Your task to perform on an android device: Open Yahoo.com Image 0: 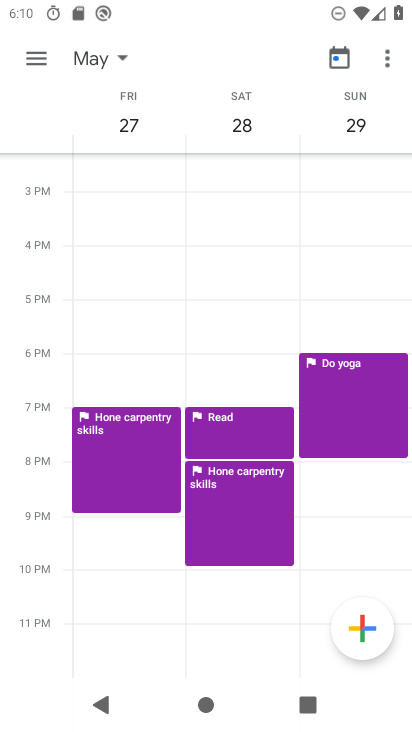
Step 0: press home button
Your task to perform on an android device: Open Yahoo.com Image 1: 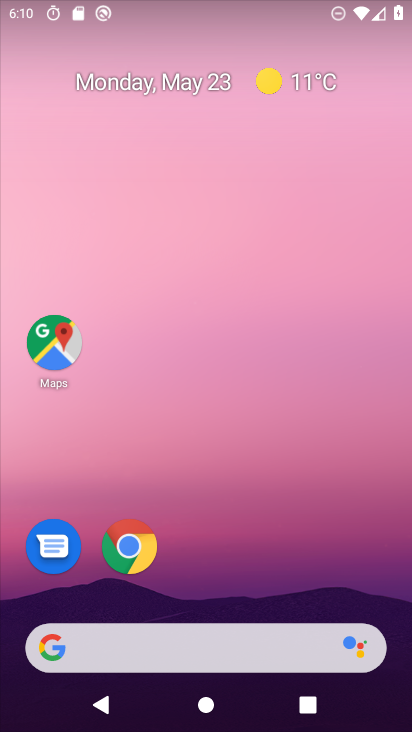
Step 1: click (128, 546)
Your task to perform on an android device: Open Yahoo.com Image 2: 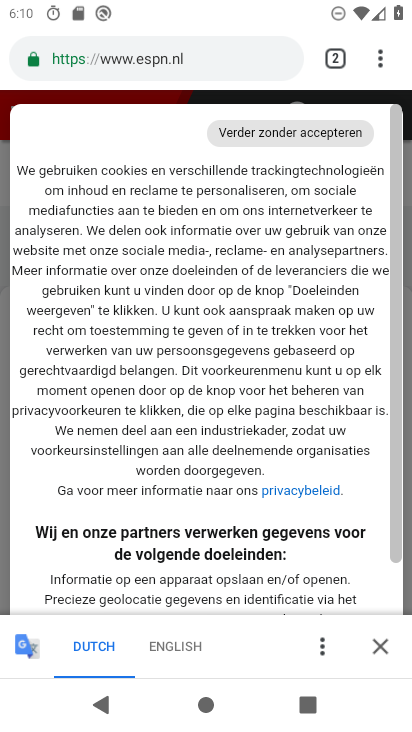
Step 2: click (335, 54)
Your task to perform on an android device: Open Yahoo.com Image 3: 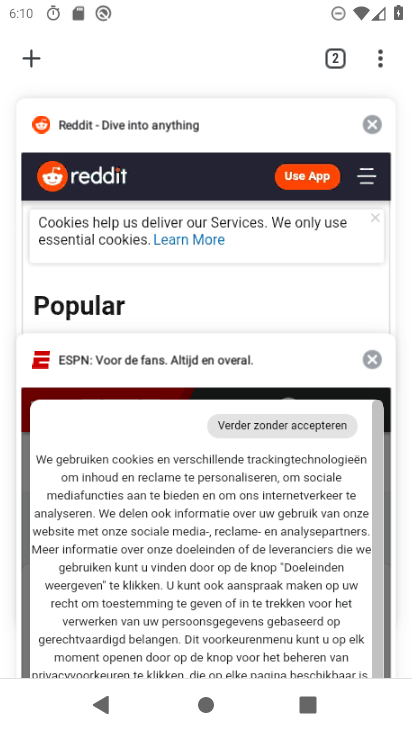
Step 3: click (27, 58)
Your task to perform on an android device: Open Yahoo.com Image 4: 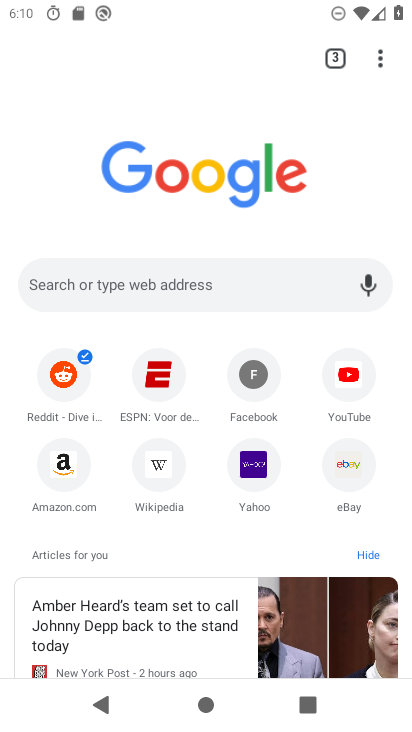
Step 4: click (256, 472)
Your task to perform on an android device: Open Yahoo.com Image 5: 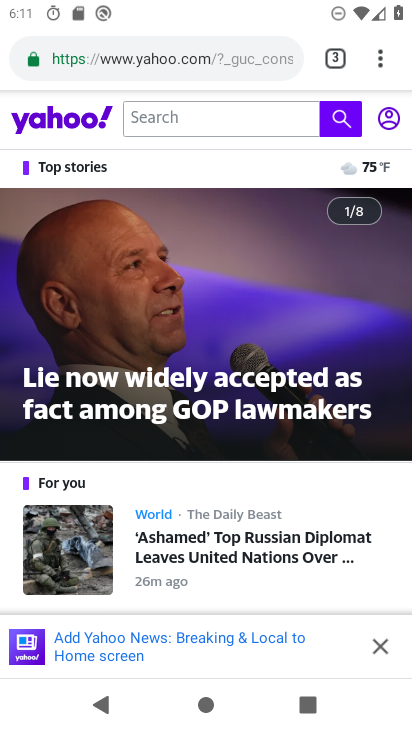
Step 5: task complete